Your task to perform on an android device: turn on javascript in the chrome app Image 0: 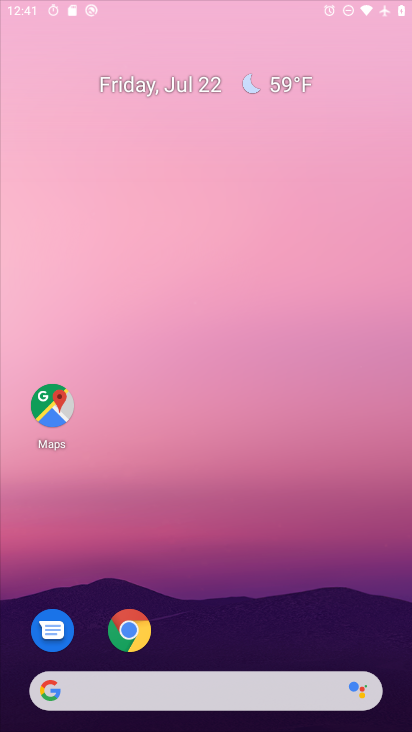
Step 0: press home button
Your task to perform on an android device: turn on javascript in the chrome app Image 1: 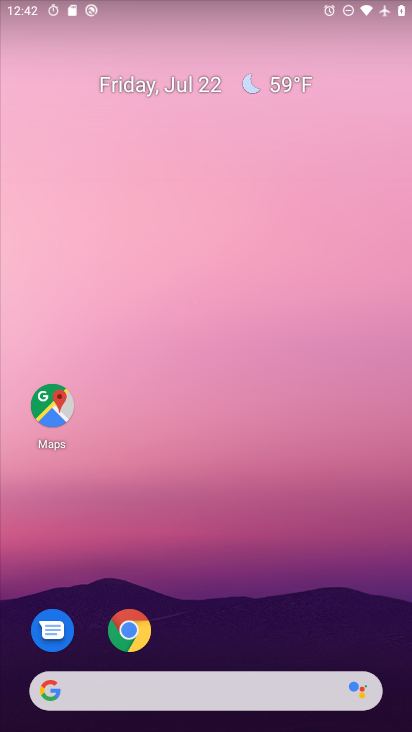
Step 1: drag from (224, 631) to (215, 117)
Your task to perform on an android device: turn on javascript in the chrome app Image 2: 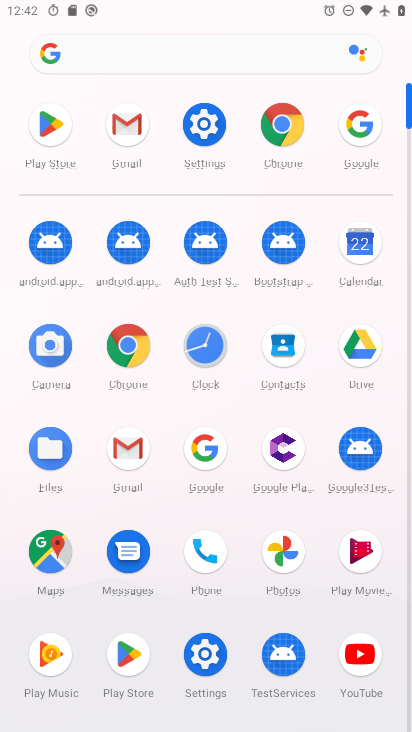
Step 2: click (292, 125)
Your task to perform on an android device: turn on javascript in the chrome app Image 3: 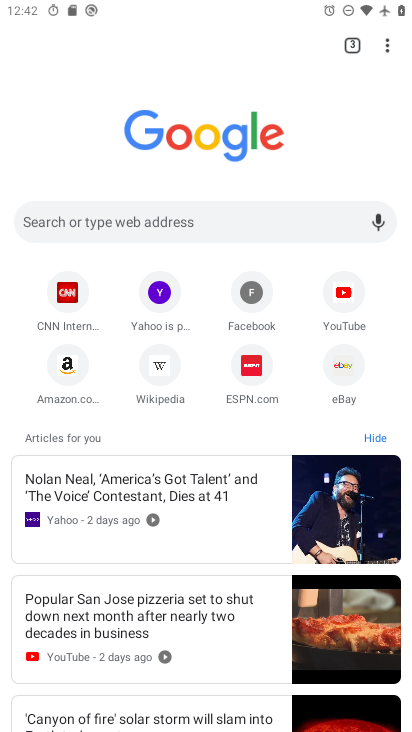
Step 3: drag from (391, 41) to (219, 442)
Your task to perform on an android device: turn on javascript in the chrome app Image 4: 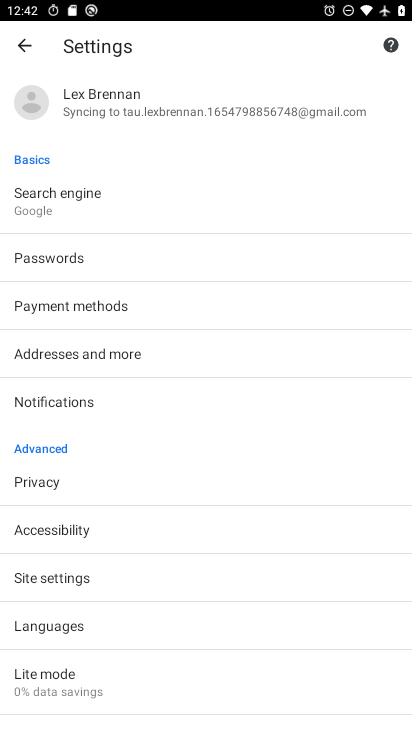
Step 4: click (50, 572)
Your task to perform on an android device: turn on javascript in the chrome app Image 5: 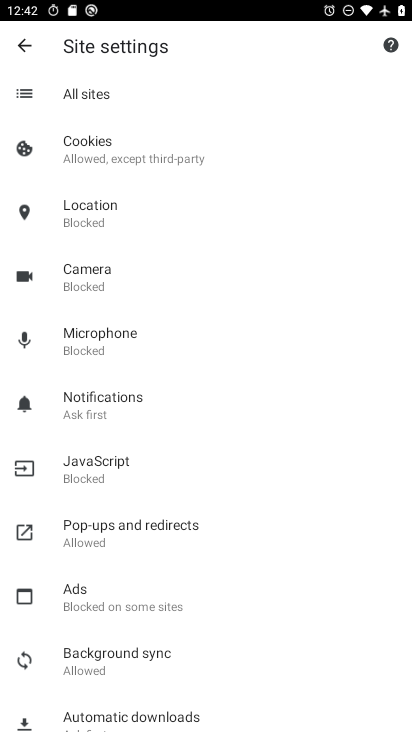
Step 5: click (84, 474)
Your task to perform on an android device: turn on javascript in the chrome app Image 6: 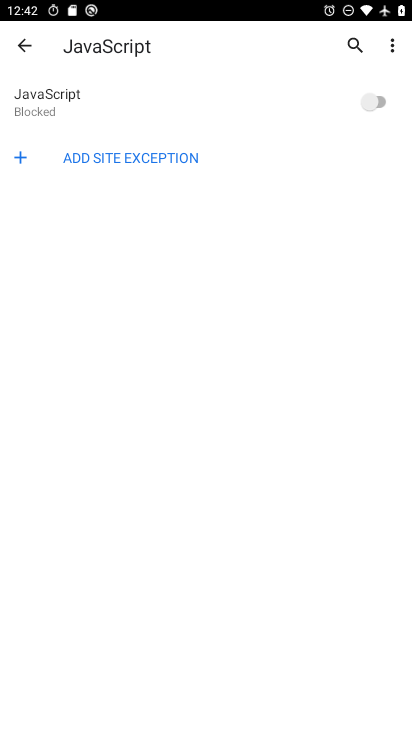
Step 6: click (369, 94)
Your task to perform on an android device: turn on javascript in the chrome app Image 7: 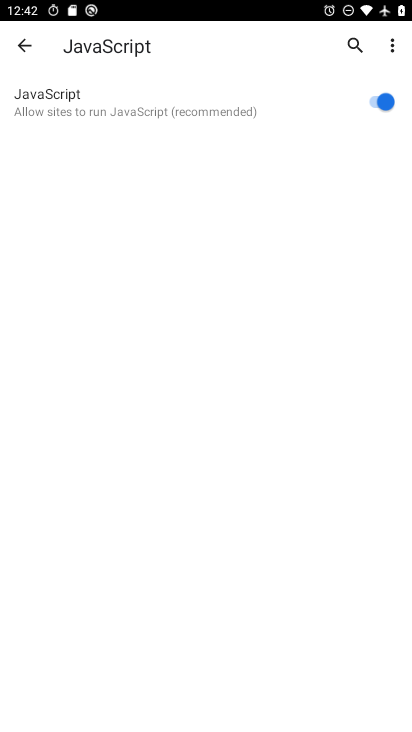
Step 7: task complete